Your task to perform on an android device: turn off notifications in google photos Image 0: 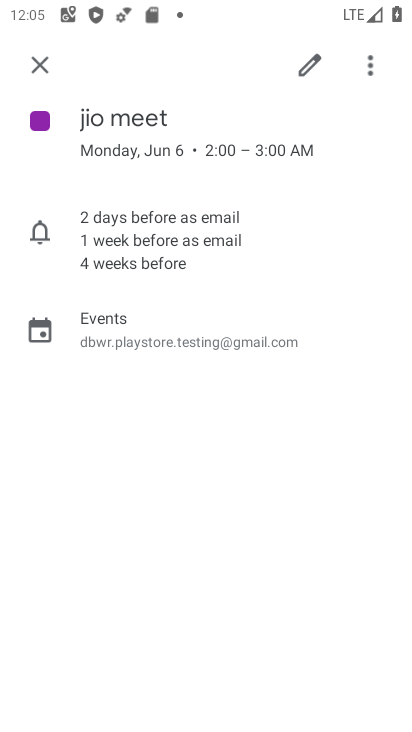
Step 0: press home button
Your task to perform on an android device: turn off notifications in google photos Image 1: 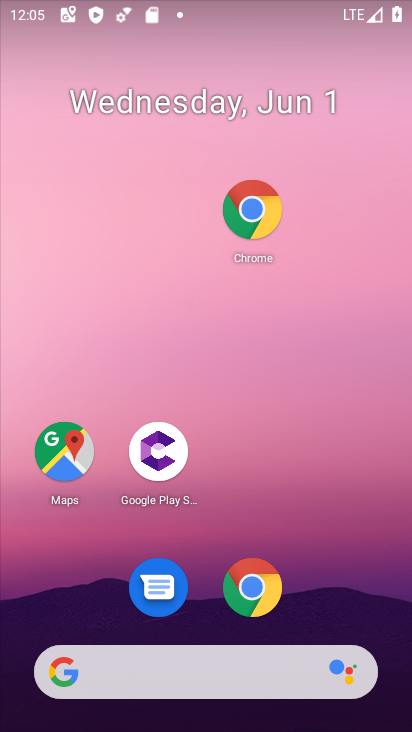
Step 1: drag from (348, 490) to (322, 37)
Your task to perform on an android device: turn off notifications in google photos Image 2: 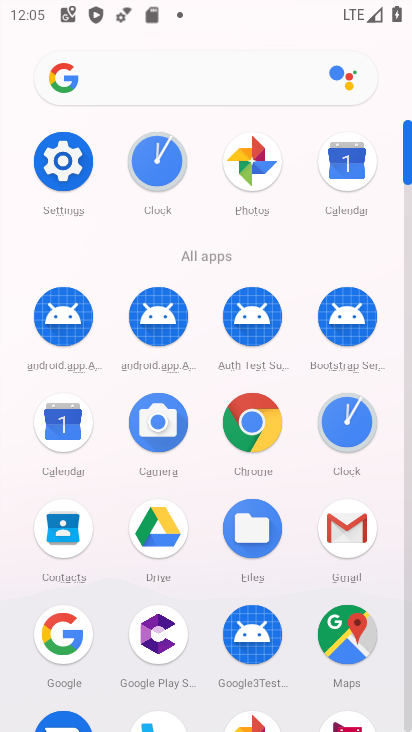
Step 2: drag from (197, 618) to (206, 509)
Your task to perform on an android device: turn off notifications in google photos Image 3: 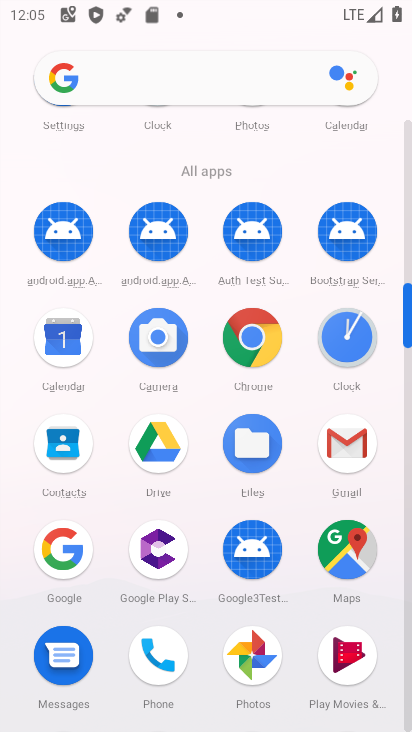
Step 3: click (260, 638)
Your task to perform on an android device: turn off notifications in google photos Image 4: 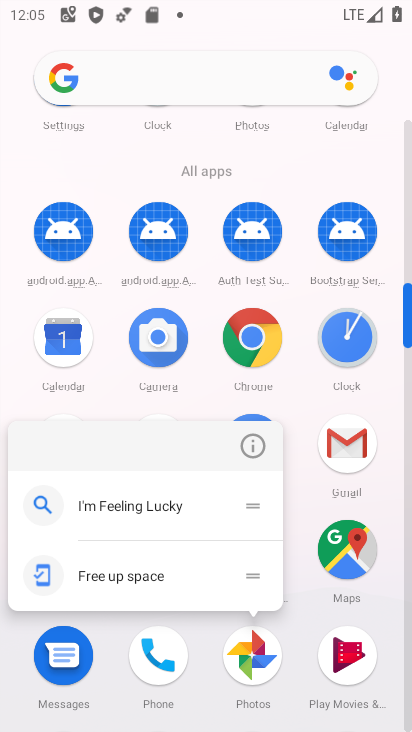
Step 4: click (246, 446)
Your task to perform on an android device: turn off notifications in google photos Image 5: 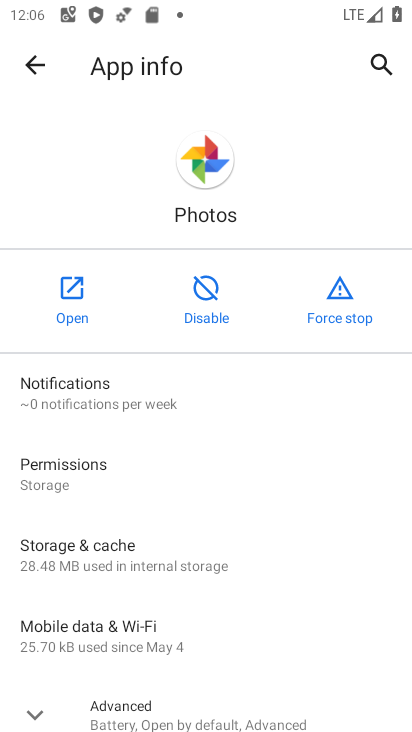
Step 5: click (149, 397)
Your task to perform on an android device: turn off notifications in google photos Image 6: 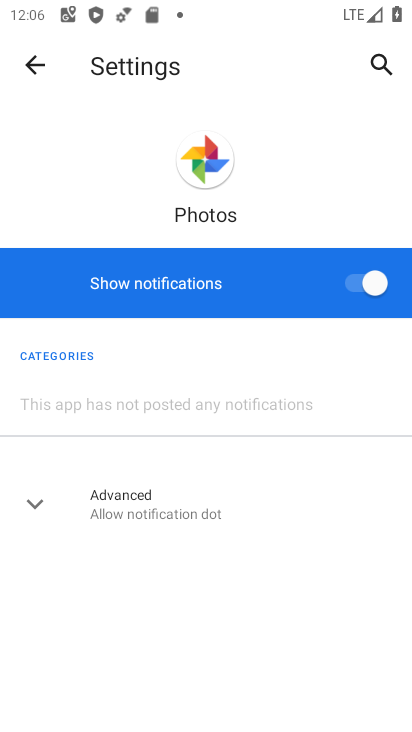
Step 6: click (380, 289)
Your task to perform on an android device: turn off notifications in google photos Image 7: 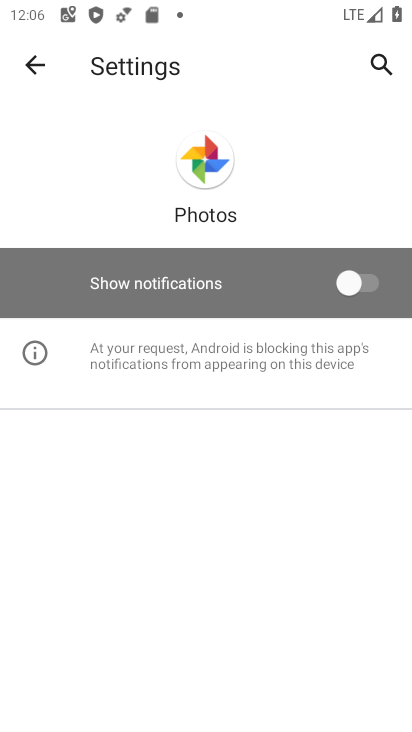
Step 7: task complete